Your task to perform on an android device: Open Yahoo.com Image 0: 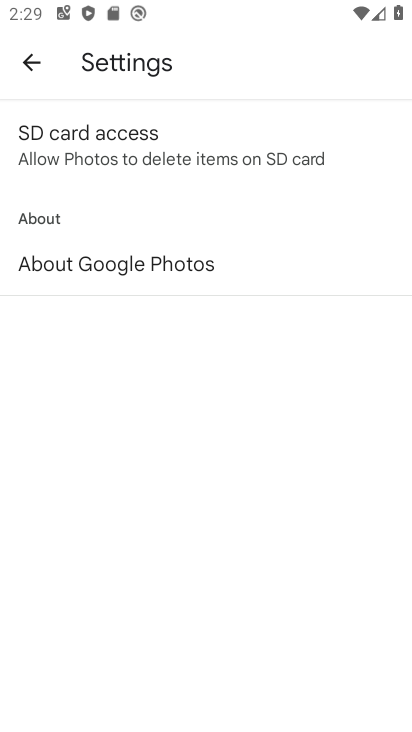
Step 0: press back button
Your task to perform on an android device: Open Yahoo.com Image 1: 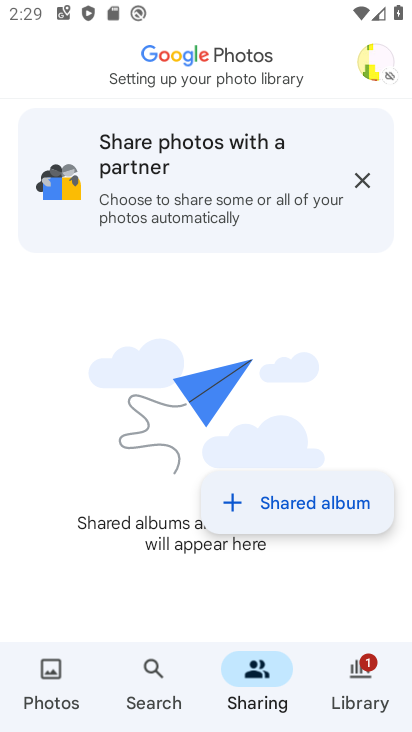
Step 1: press back button
Your task to perform on an android device: Open Yahoo.com Image 2: 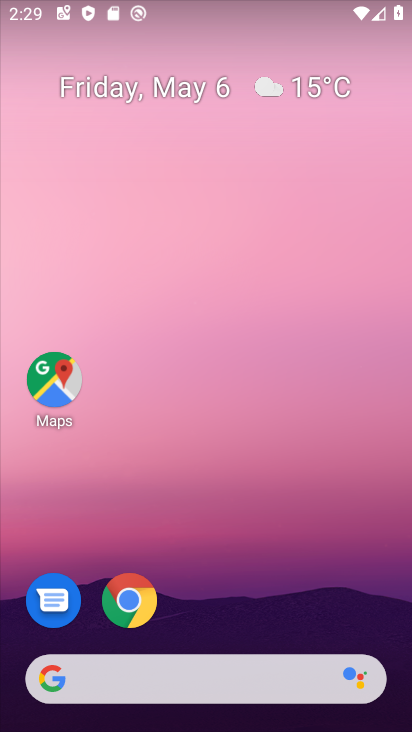
Step 2: drag from (296, 545) to (252, 23)
Your task to perform on an android device: Open Yahoo.com Image 3: 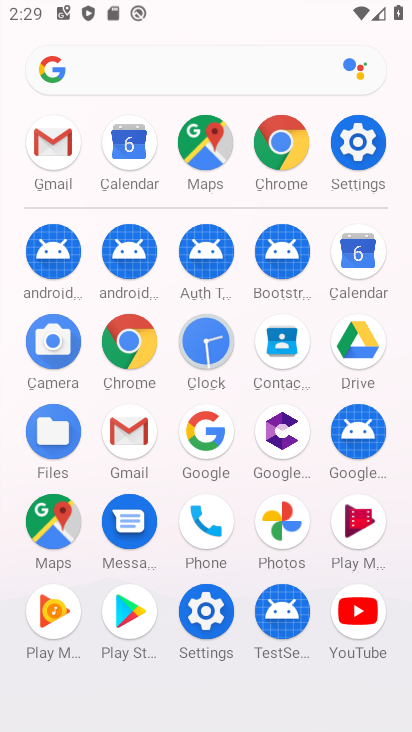
Step 3: click (130, 337)
Your task to perform on an android device: Open Yahoo.com Image 4: 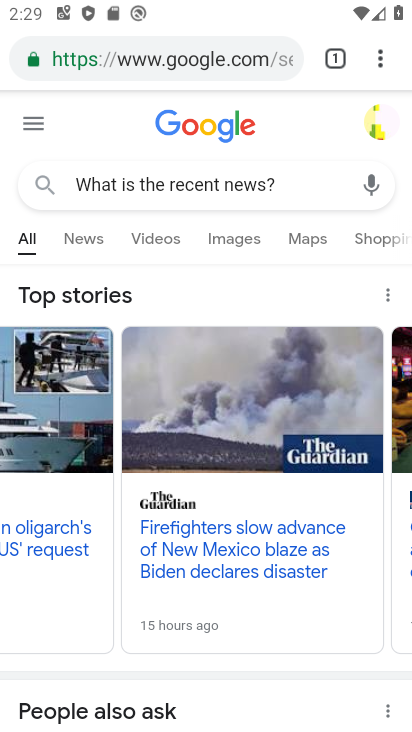
Step 4: click (163, 58)
Your task to perform on an android device: Open Yahoo.com Image 5: 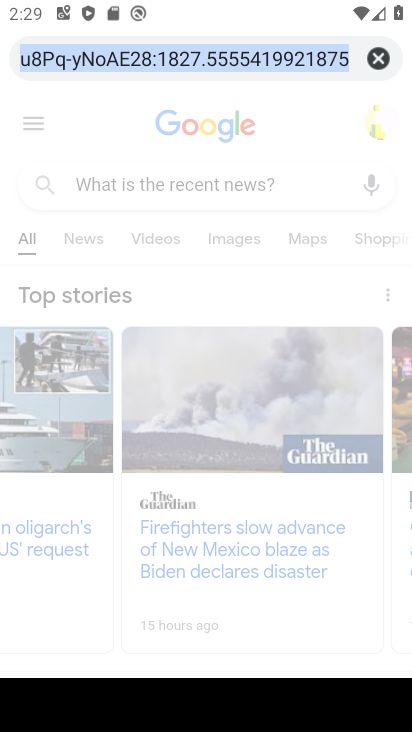
Step 5: click (370, 58)
Your task to perform on an android device: Open Yahoo.com Image 6: 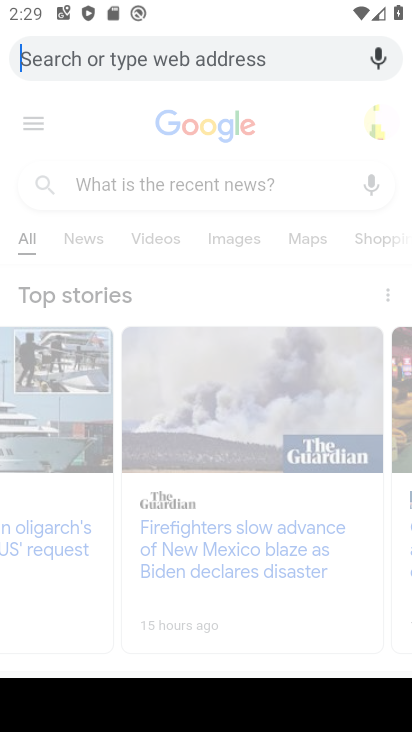
Step 6: type "Yahoo.com"
Your task to perform on an android device: Open Yahoo.com Image 7: 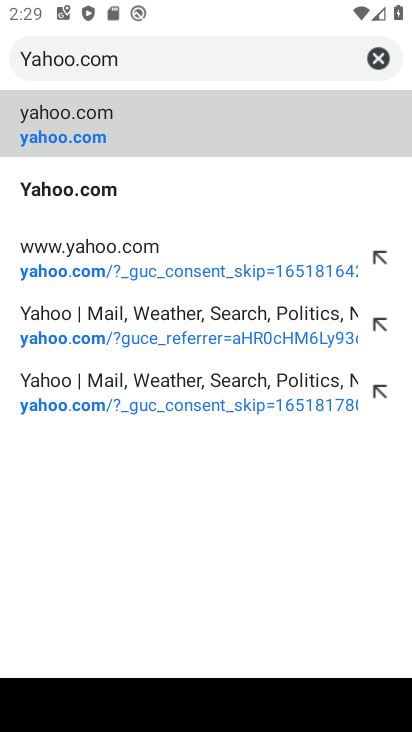
Step 7: click (179, 121)
Your task to perform on an android device: Open Yahoo.com Image 8: 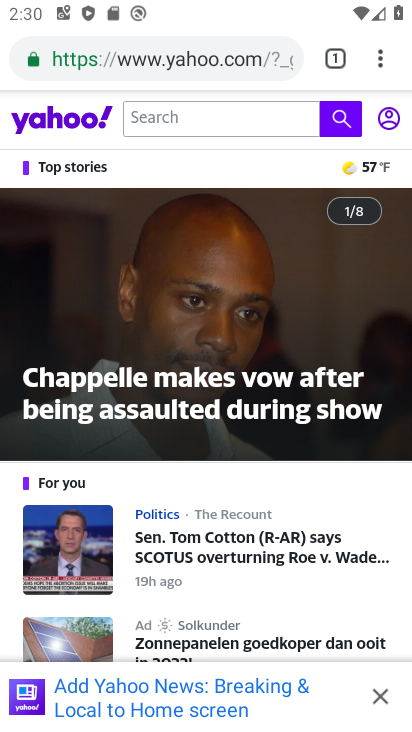
Step 8: task complete